Your task to perform on an android device: Go to Wikipedia Image 0: 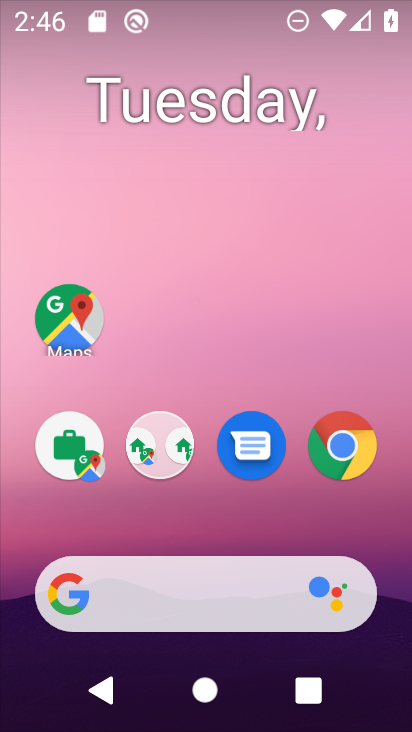
Step 0: click (357, 459)
Your task to perform on an android device: Go to Wikipedia Image 1: 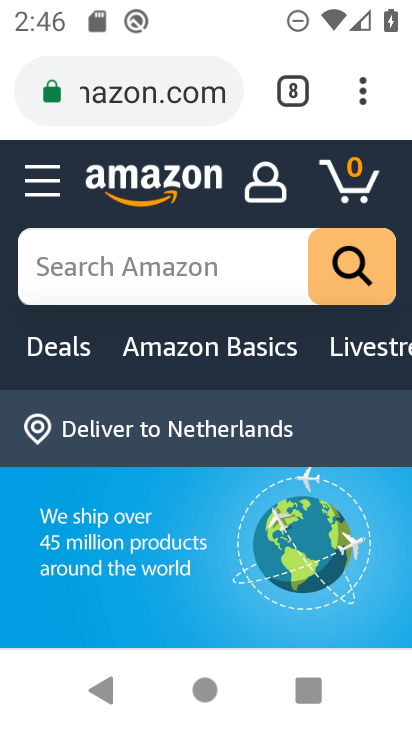
Step 1: click (287, 101)
Your task to perform on an android device: Go to Wikipedia Image 2: 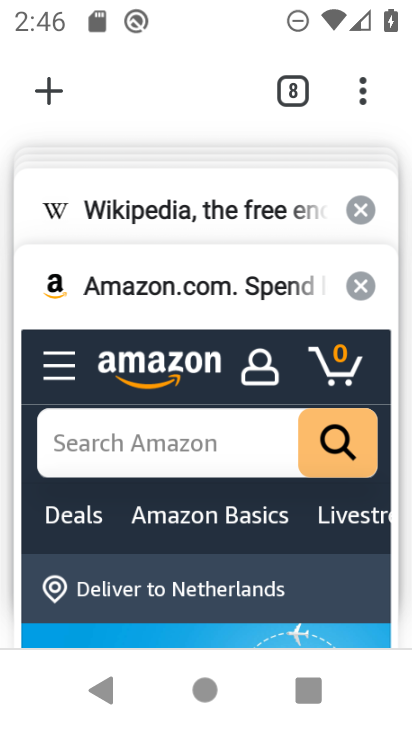
Step 2: click (211, 217)
Your task to perform on an android device: Go to Wikipedia Image 3: 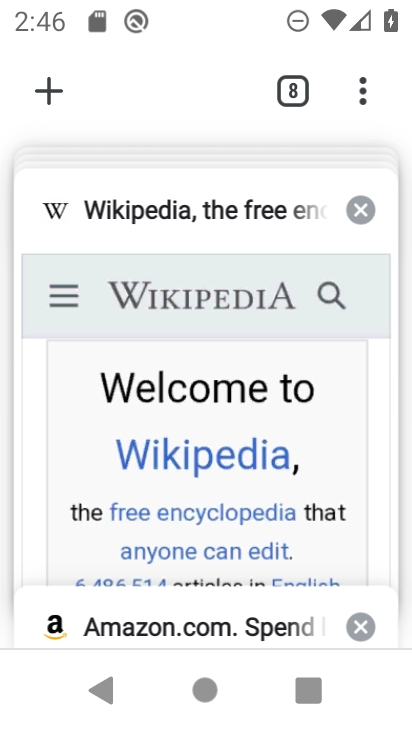
Step 3: click (220, 444)
Your task to perform on an android device: Go to Wikipedia Image 4: 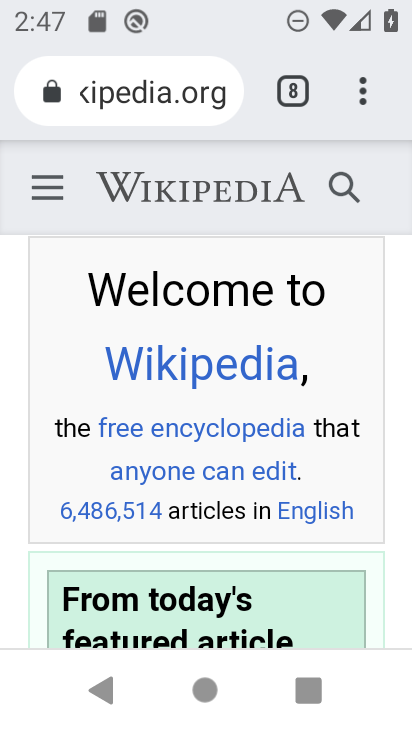
Step 4: task complete